Your task to perform on an android device: open app "Google Translate" Image 0: 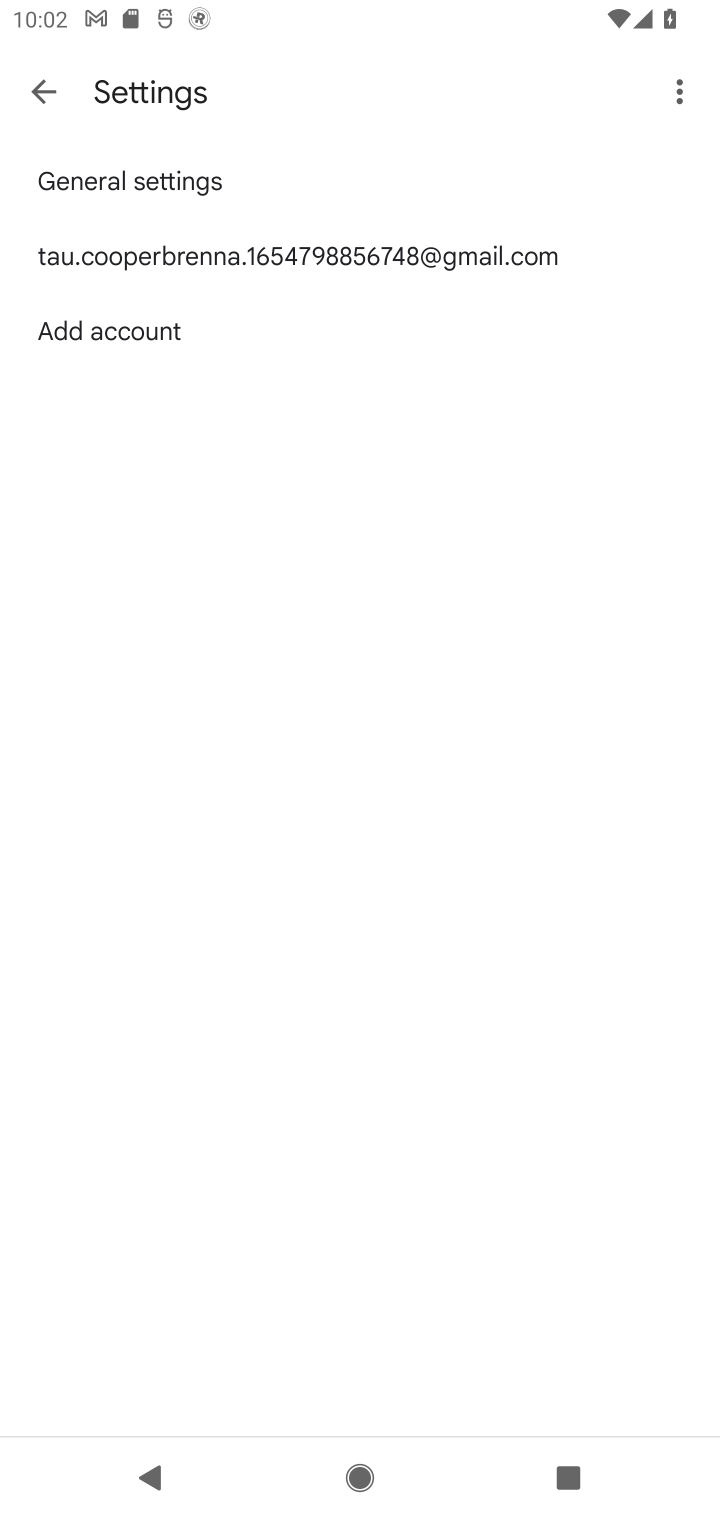
Step 0: press home button
Your task to perform on an android device: open app "Google Translate" Image 1: 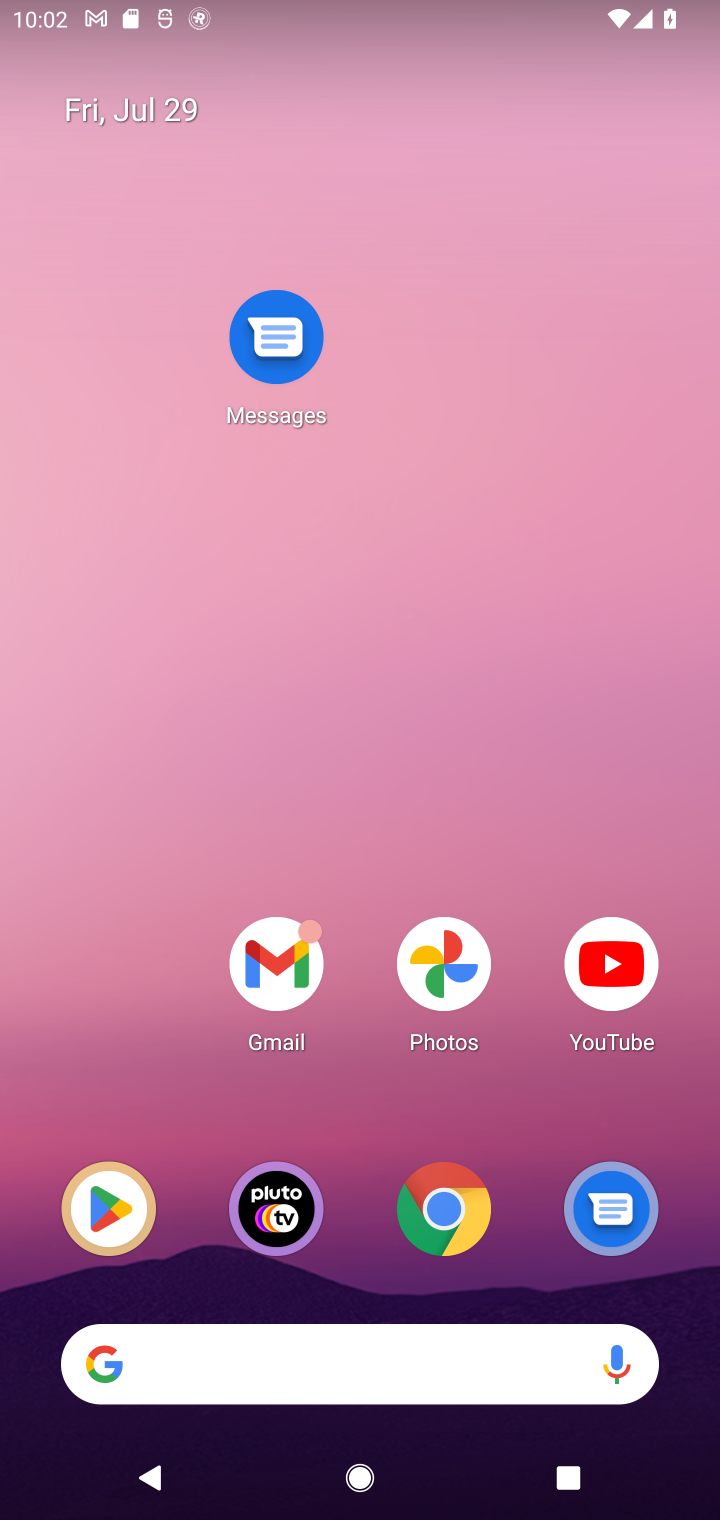
Step 1: drag from (315, 1358) to (343, 287)
Your task to perform on an android device: open app "Google Translate" Image 2: 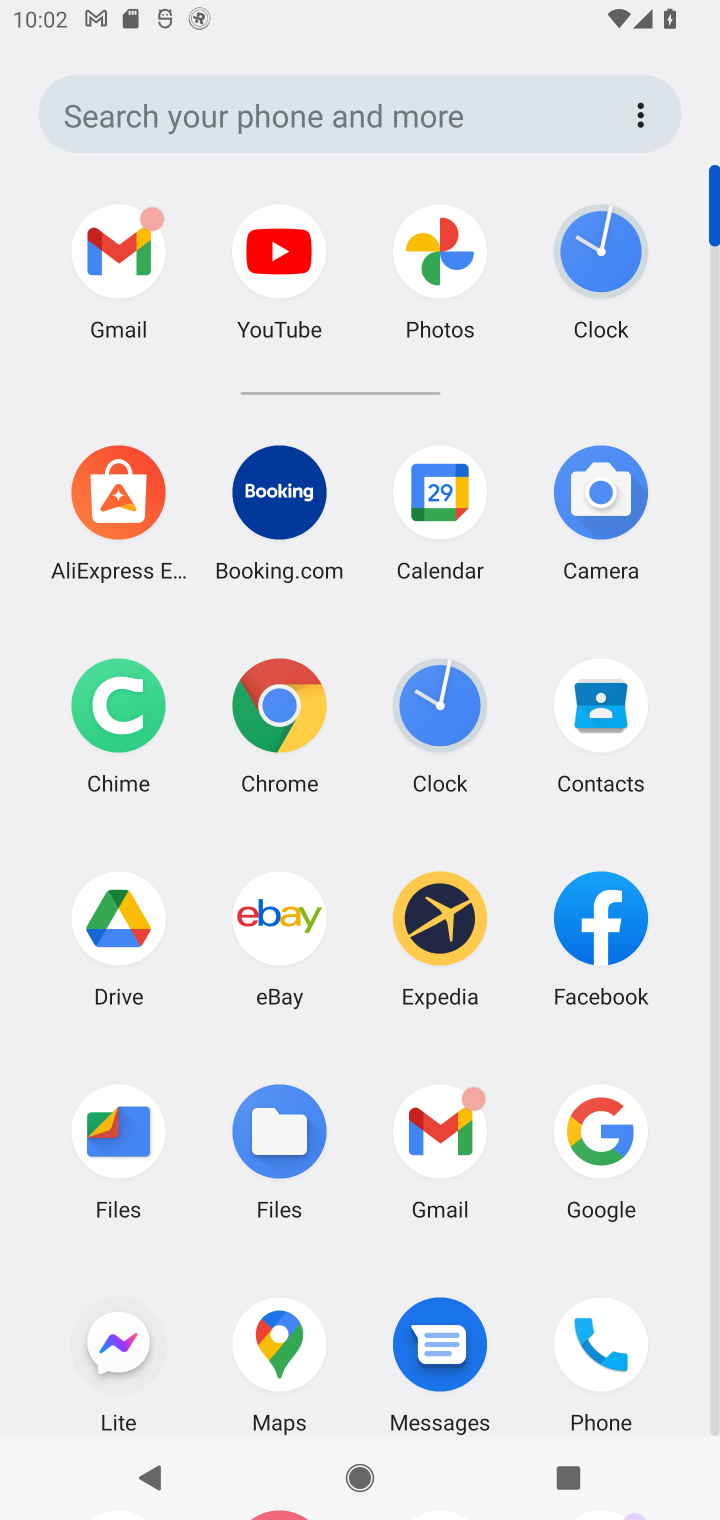
Step 2: drag from (350, 1200) to (376, 461)
Your task to perform on an android device: open app "Google Translate" Image 3: 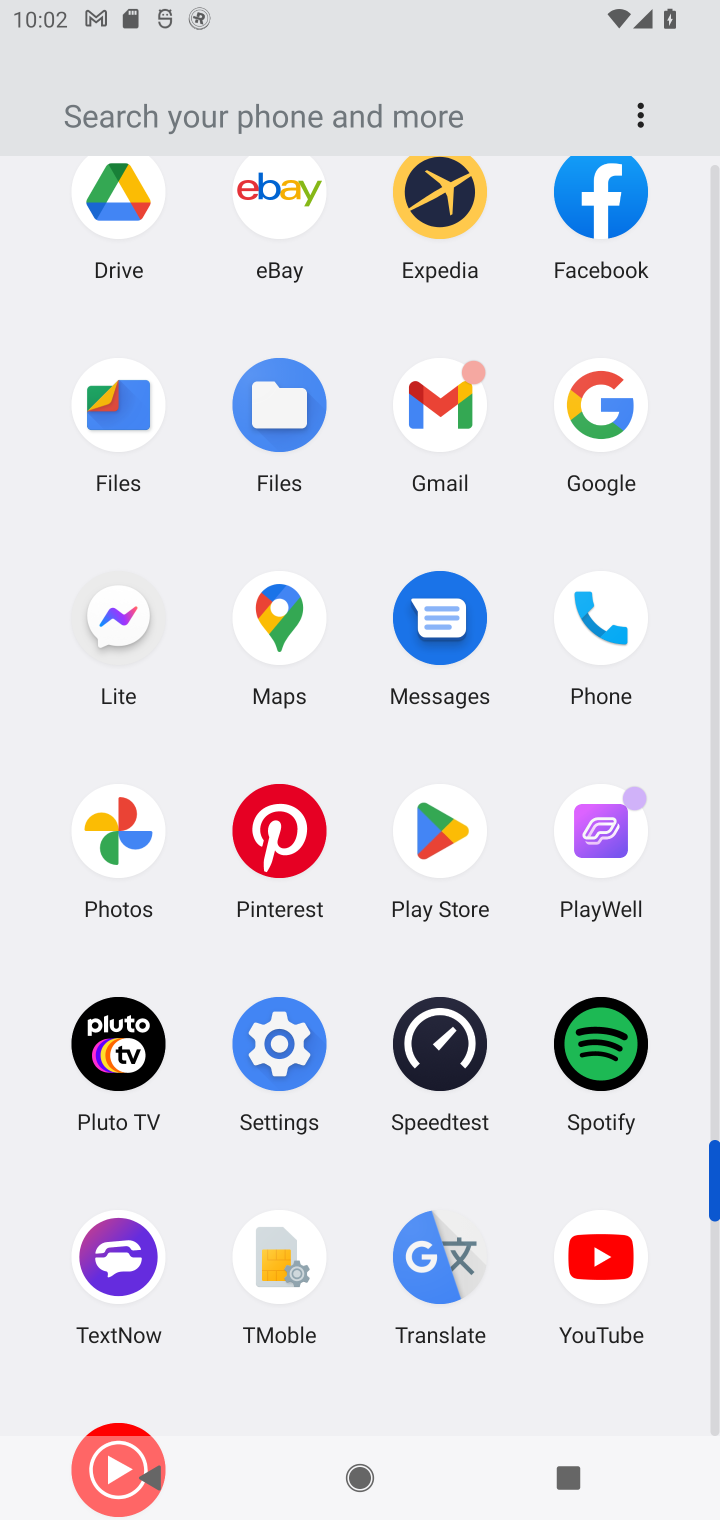
Step 3: click (441, 1272)
Your task to perform on an android device: open app "Google Translate" Image 4: 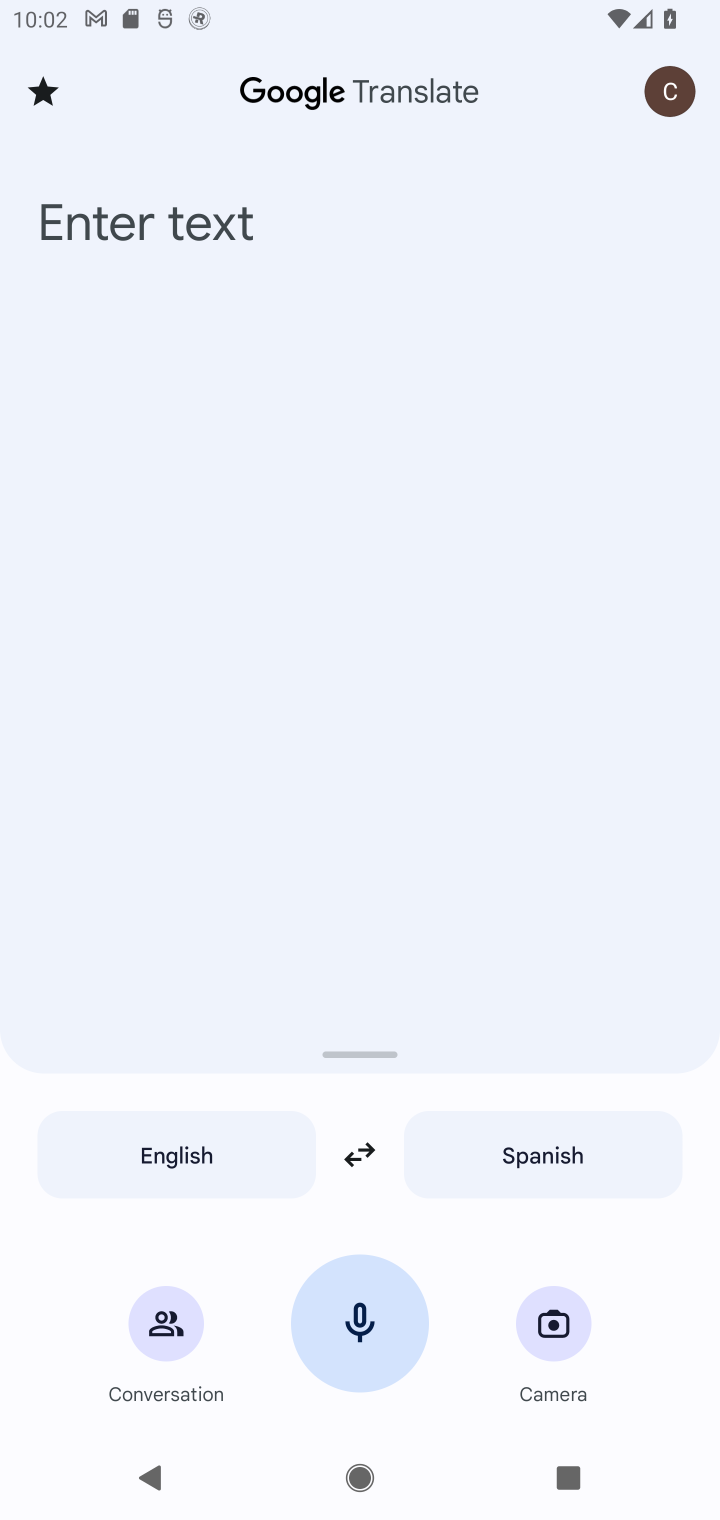
Step 4: task complete